Your task to perform on an android device: Go to Reddit.com Image 0: 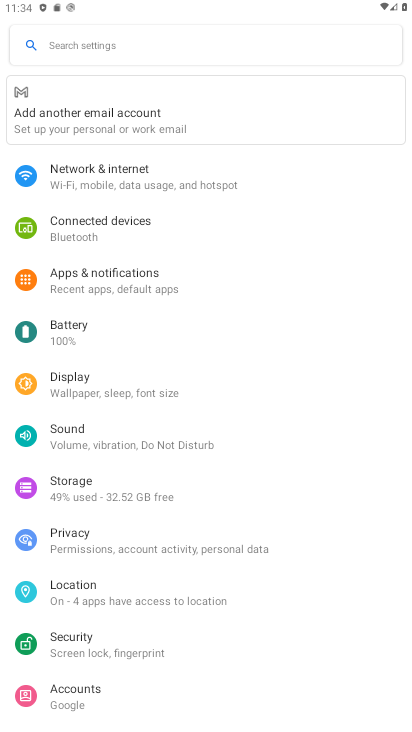
Step 0: task complete